Your task to perform on an android device: add a contact in the contacts app Image 0: 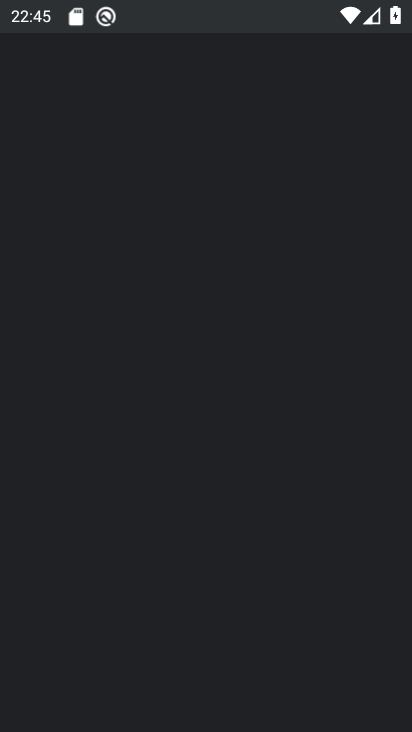
Step 0: drag from (217, 603) to (209, 134)
Your task to perform on an android device: add a contact in the contacts app Image 1: 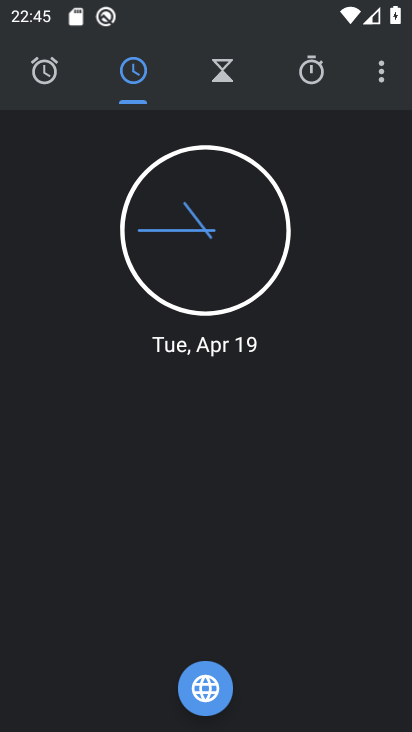
Step 1: press home button
Your task to perform on an android device: add a contact in the contacts app Image 2: 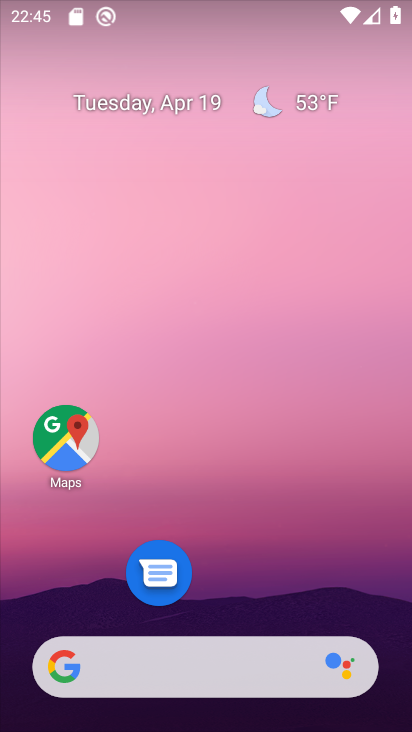
Step 2: drag from (227, 607) to (222, 108)
Your task to perform on an android device: add a contact in the contacts app Image 3: 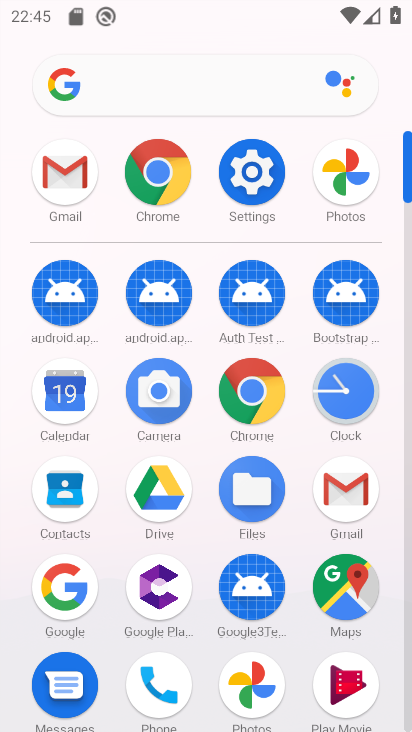
Step 3: click (63, 481)
Your task to perform on an android device: add a contact in the contacts app Image 4: 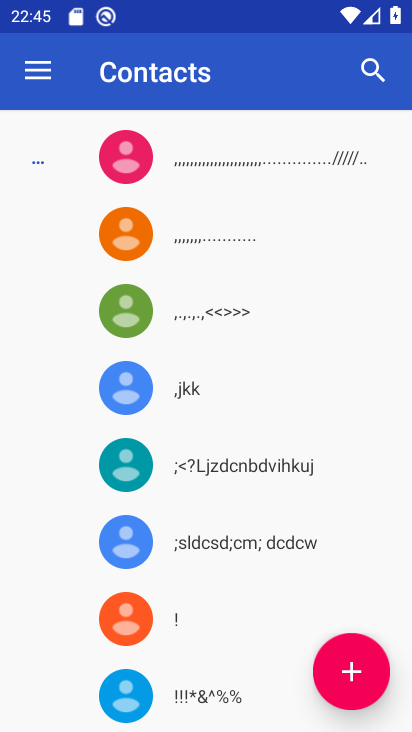
Step 4: click (351, 671)
Your task to perform on an android device: add a contact in the contacts app Image 5: 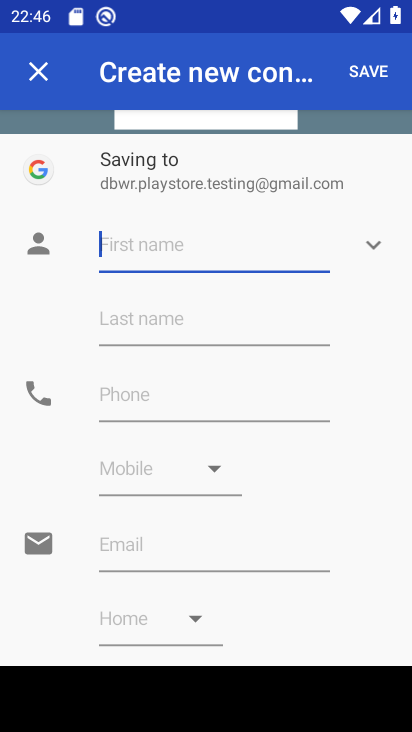
Step 5: type "aprnktsri"
Your task to perform on an android device: add a contact in the contacts app Image 6: 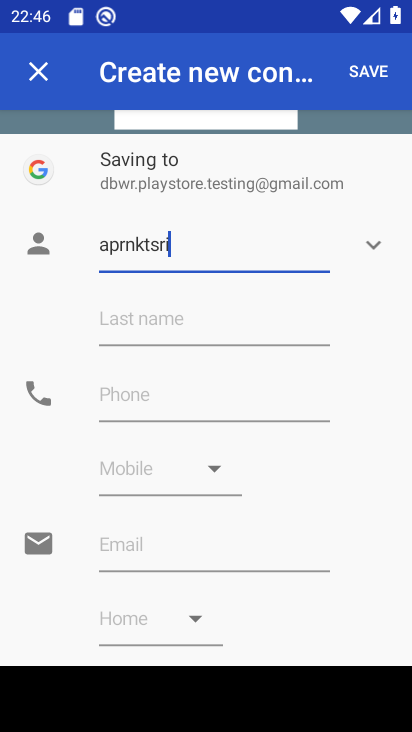
Step 6: type ""
Your task to perform on an android device: add a contact in the contacts app Image 7: 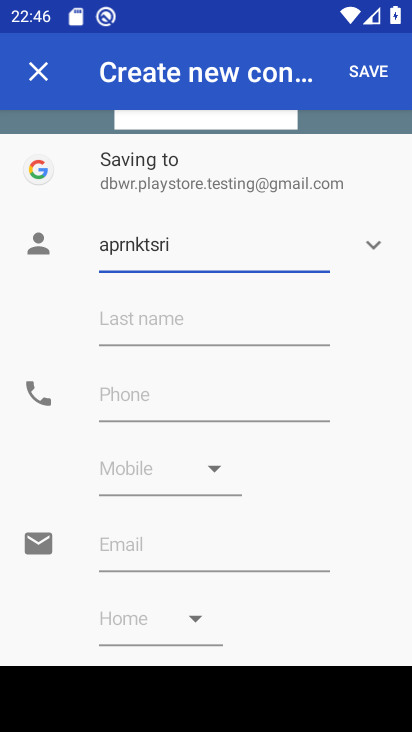
Step 7: click (364, 67)
Your task to perform on an android device: add a contact in the contacts app Image 8: 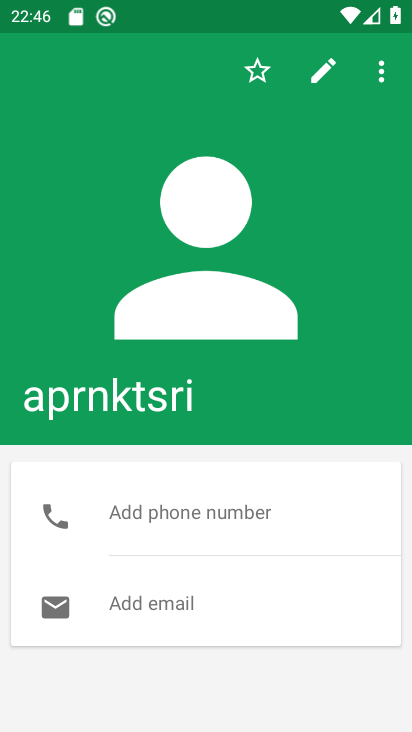
Step 8: task complete